Your task to perform on an android device: Find coffee shops on Maps Image 0: 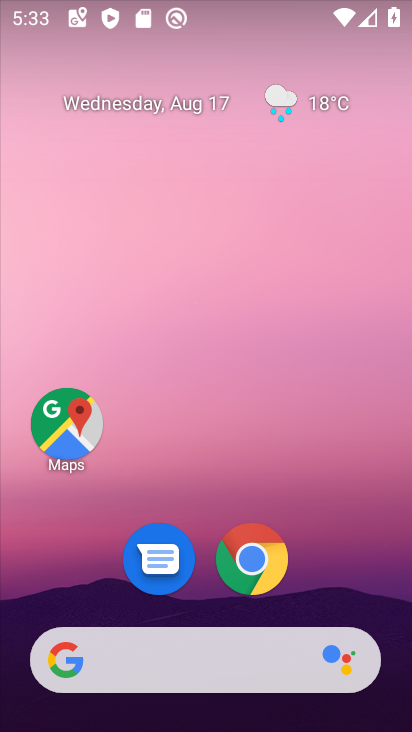
Step 0: click (61, 418)
Your task to perform on an android device: Find coffee shops on Maps Image 1: 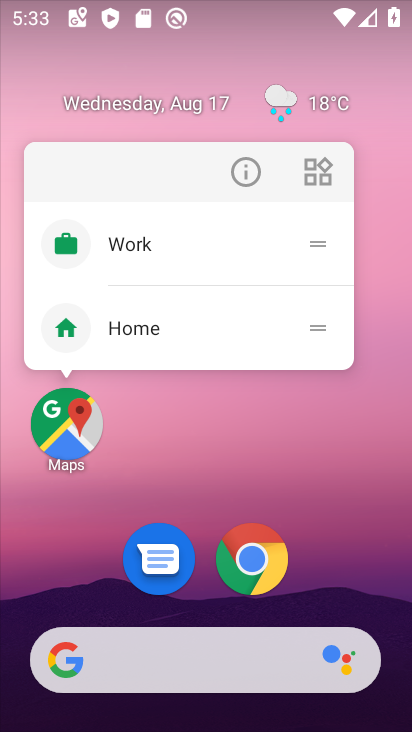
Step 1: click (56, 432)
Your task to perform on an android device: Find coffee shops on Maps Image 2: 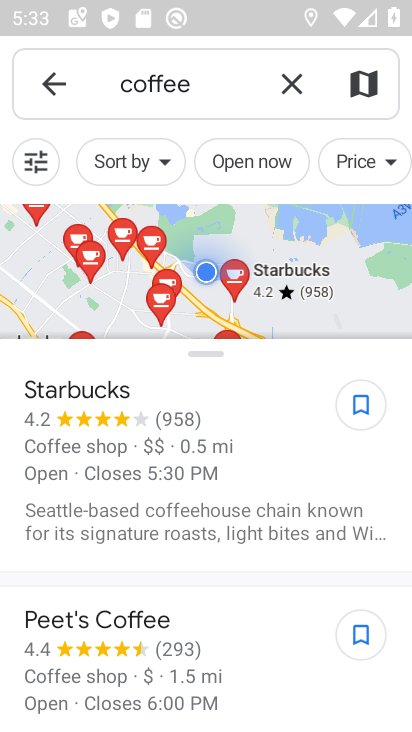
Step 2: task complete